Your task to perform on an android device: find which apps use the phone's location Image 0: 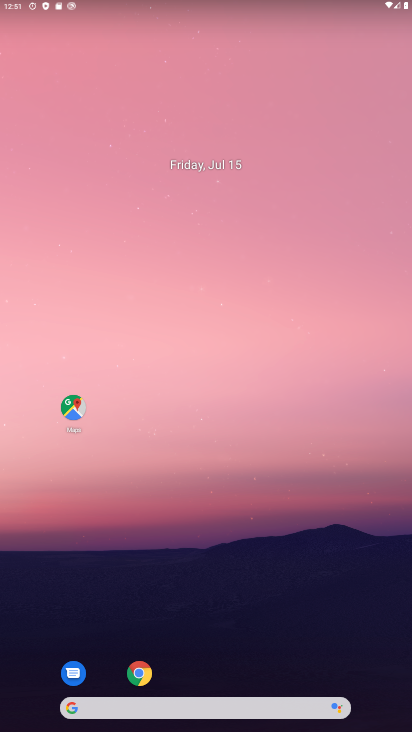
Step 0: drag from (263, 561) to (260, 10)
Your task to perform on an android device: find which apps use the phone's location Image 1: 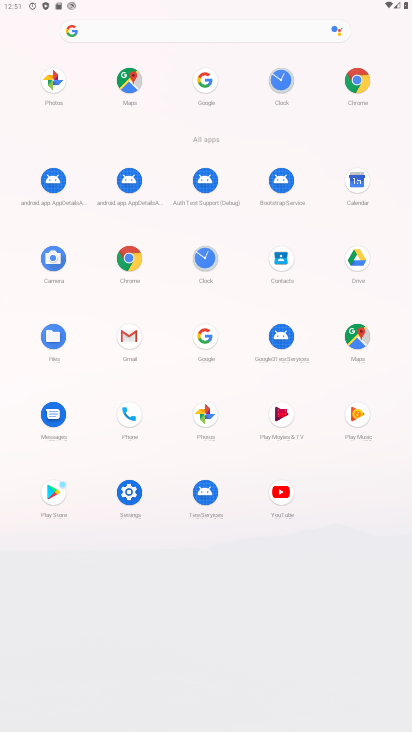
Step 1: click (128, 495)
Your task to perform on an android device: find which apps use the phone's location Image 2: 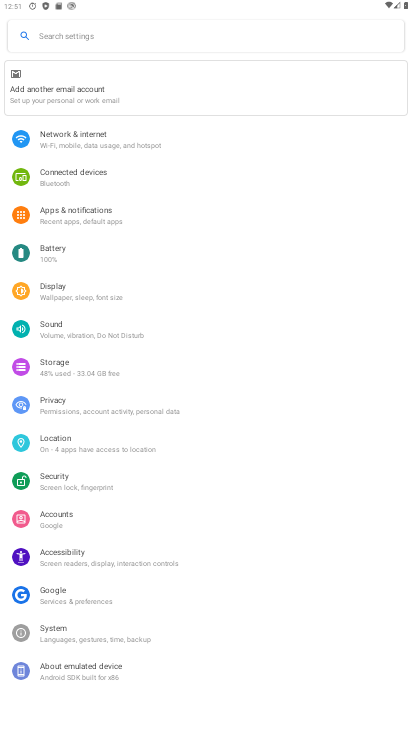
Step 2: click (48, 220)
Your task to perform on an android device: find which apps use the phone's location Image 3: 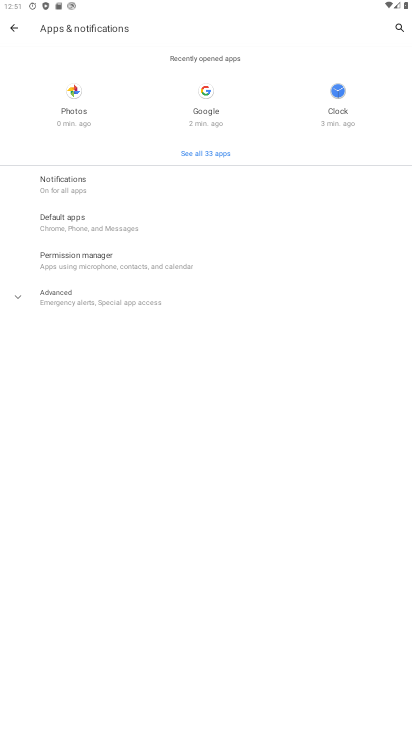
Step 3: click (98, 258)
Your task to perform on an android device: find which apps use the phone's location Image 4: 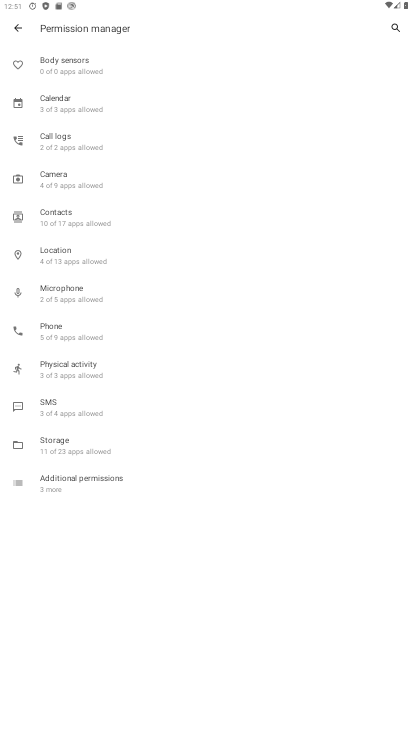
Step 4: click (16, 26)
Your task to perform on an android device: find which apps use the phone's location Image 5: 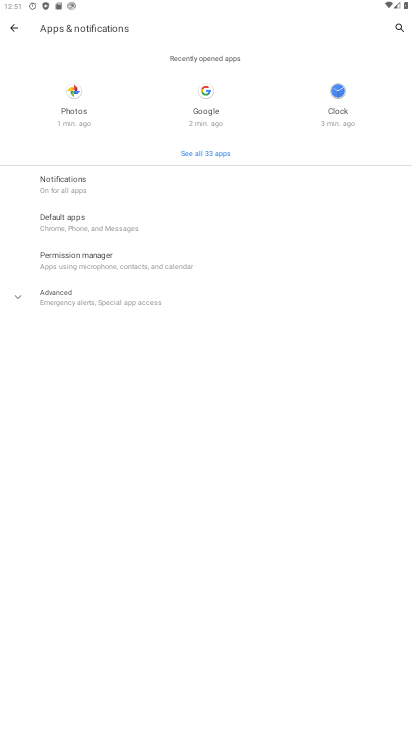
Step 5: click (97, 263)
Your task to perform on an android device: find which apps use the phone's location Image 6: 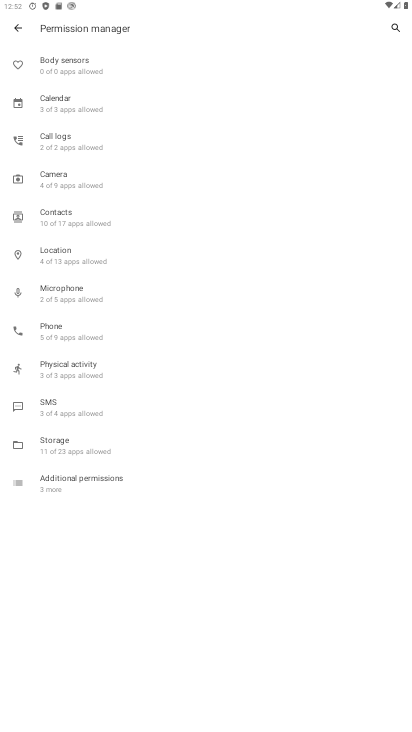
Step 6: task complete